Your task to perform on an android device: turn on wifi Image 0: 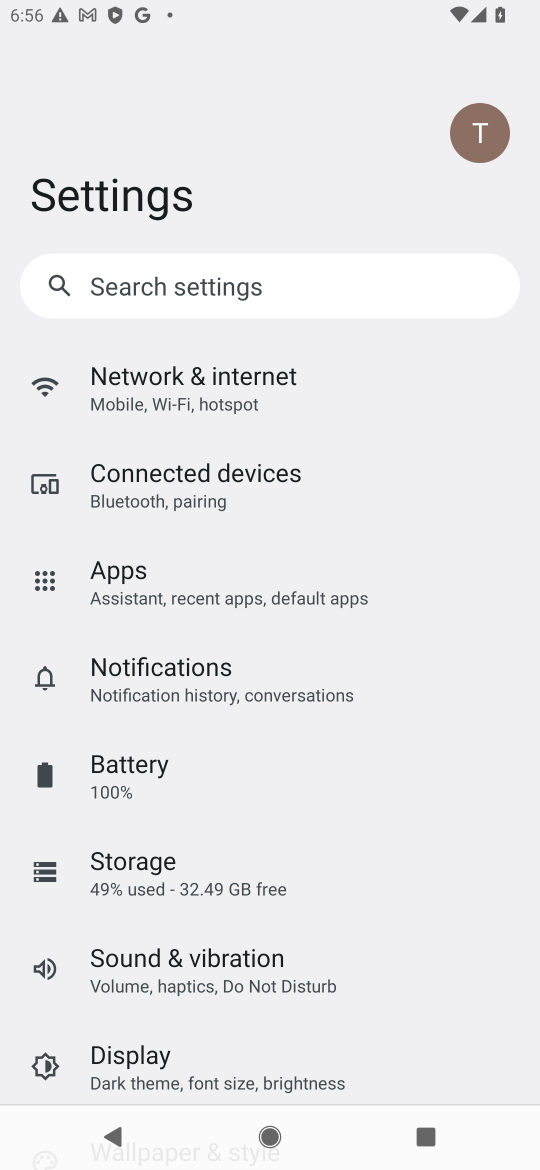
Step 0: click (241, 384)
Your task to perform on an android device: turn on wifi Image 1: 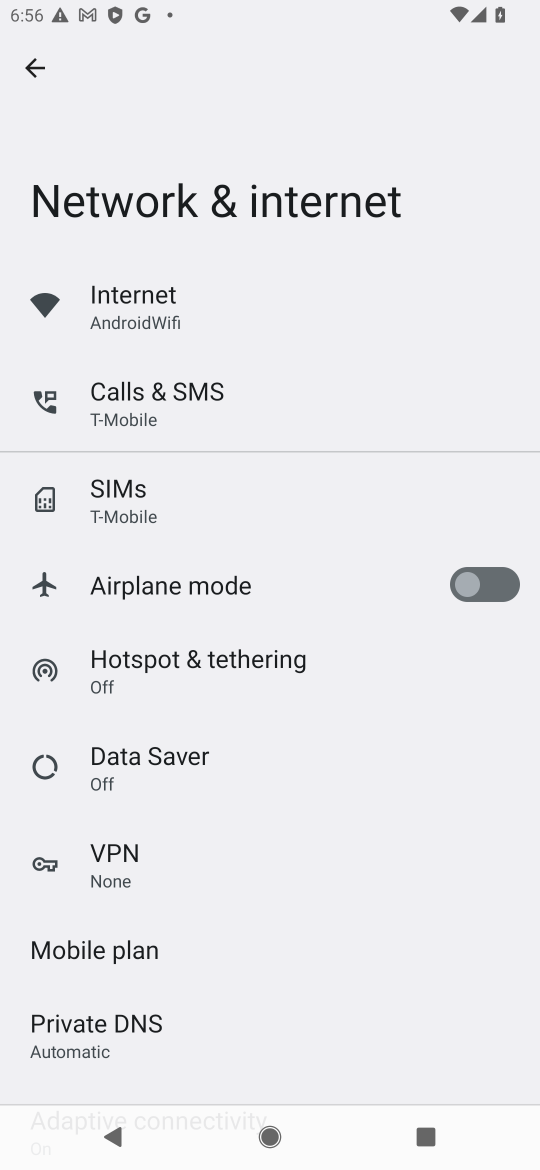
Step 1: click (141, 324)
Your task to perform on an android device: turn on wifi Image 2: 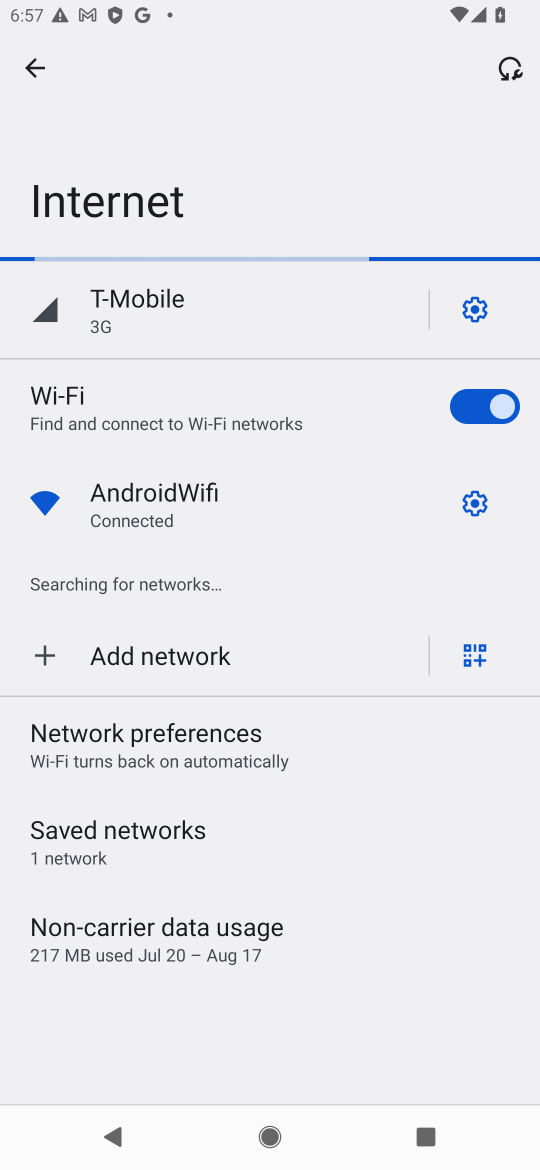
Step 2: task complete